Your task to perform on an android device: Open Youtube and go to "Your channel" Image 0: 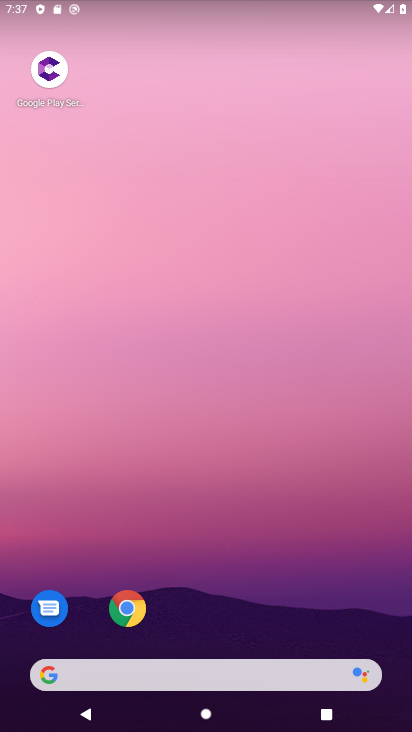
Step 0: drag from (26, 703) to (244, 36)
Your task to perform on an android device: Open Youtube and go to "Your channel" Image 1: 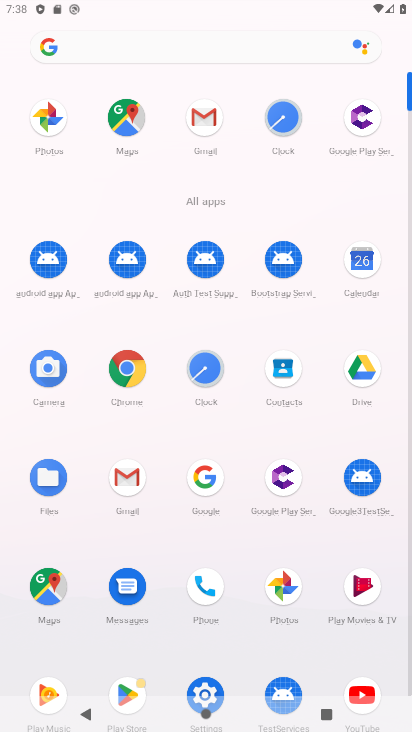
Step 1: click (350, 695)
Your task to perform on an android device: Open Youtube and go to "Your channel" Image 2: 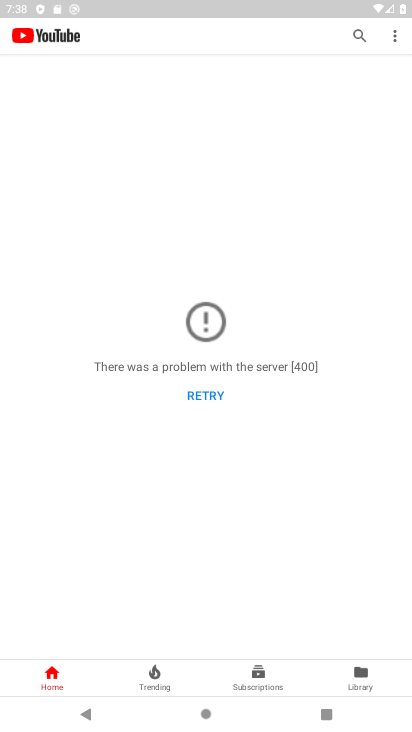
Step 2: click (392, 27)
Your task to perform on an android device: Open Youtube and go to "Your channel" Image 3: 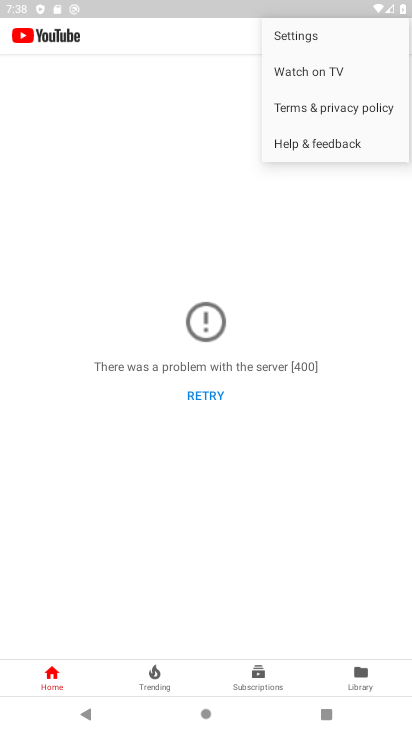
Step 3: click (305, 34)
Your task to perform on an android device: Open Youtube and go to "Your channel" Image 4: 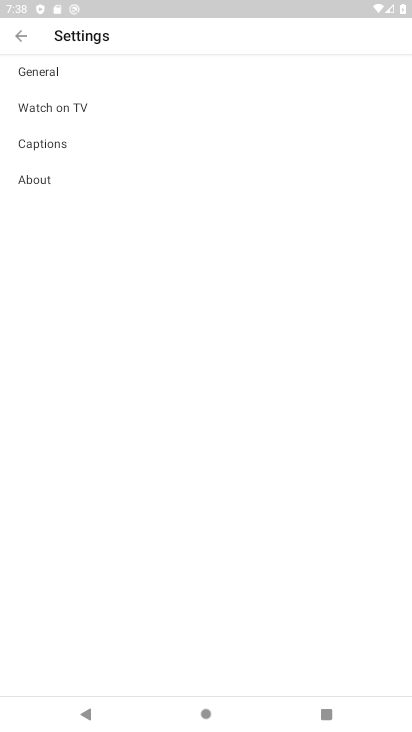
Step 4: click (24, 27)
Your task to perform on an android device: Open Youtube and go to "Your channel" Image 5: 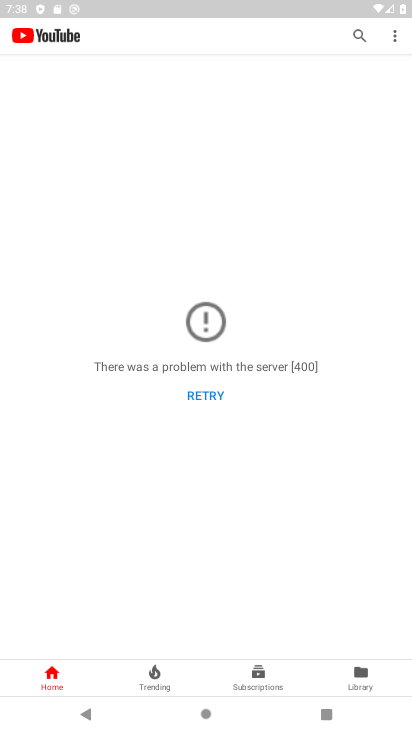
Step 5: click (391, 38)
Your task to perform on an android device: Open Youtube and go to "Your channel" Image 6: 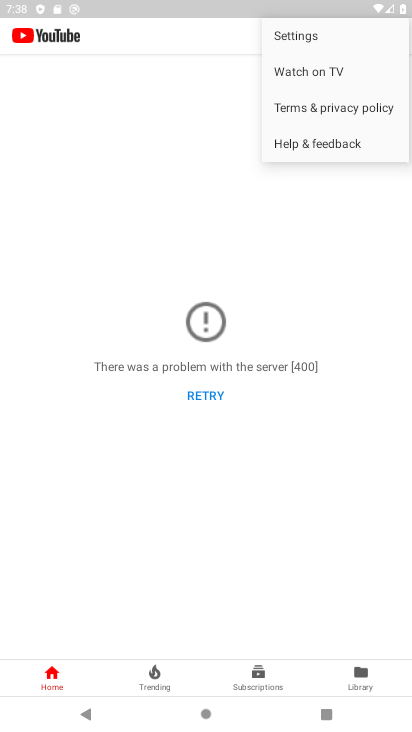
Step 6: click (361, 682)
Your task to perform on an android device: Open Youtube and go to "Your channel" Image 7: 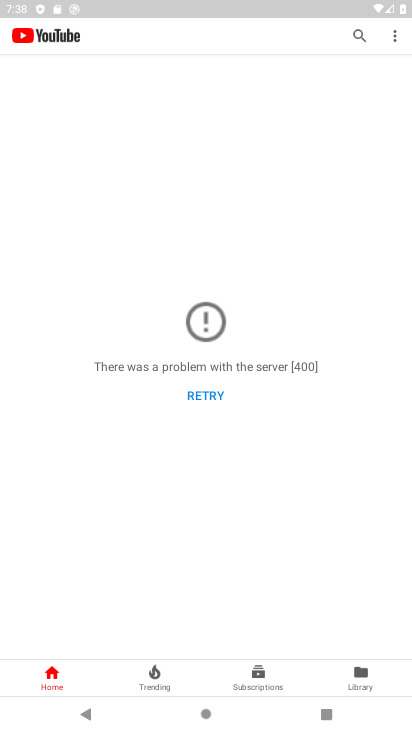
Step 7: click (367, 678)
Your task to perform on an android device: Open Youtube and go to "Your channel" Image 8: 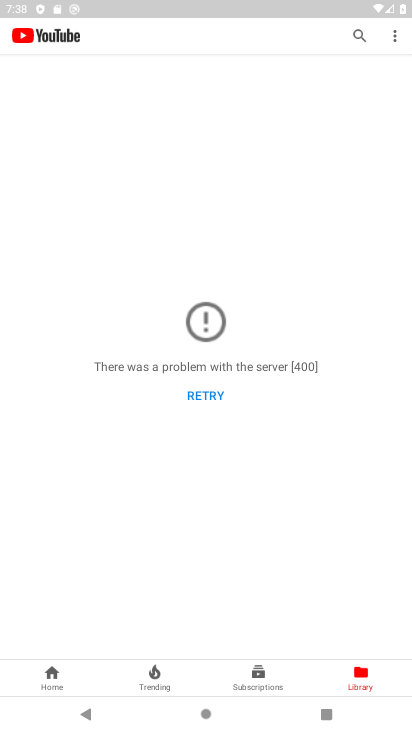
Step 8: task complete